Your task to perform on an android device: check storage Image 0: 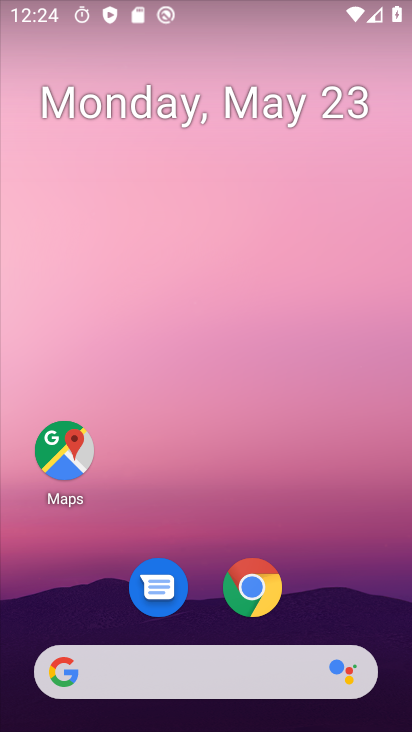
Step 0: drag from (161, 618) to (254, 65)
Your task to perform on an android device: check storage Image 1: 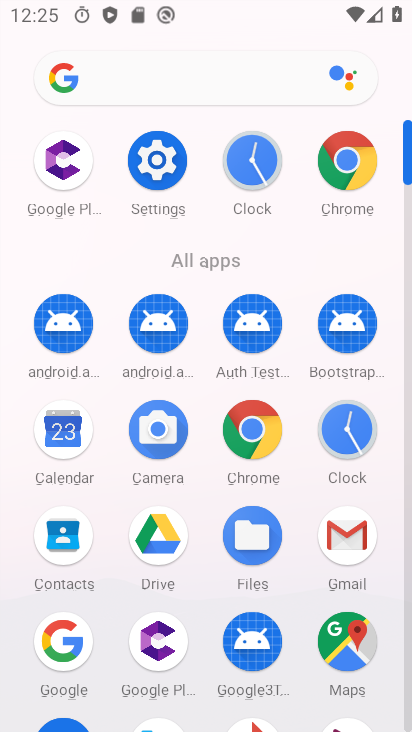
Step 1: click (137, 159)
Your task to perform on an android device: check storage Image 2: 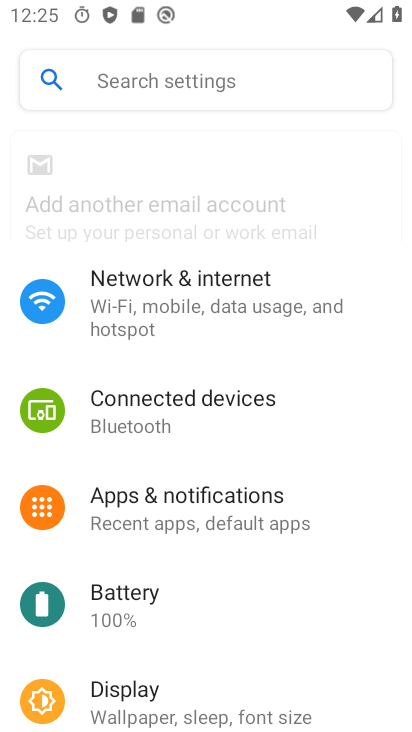
Step 2: drag from (156, 605) to (231, 133)
Your task to perform on an android device: check storage Image 3: 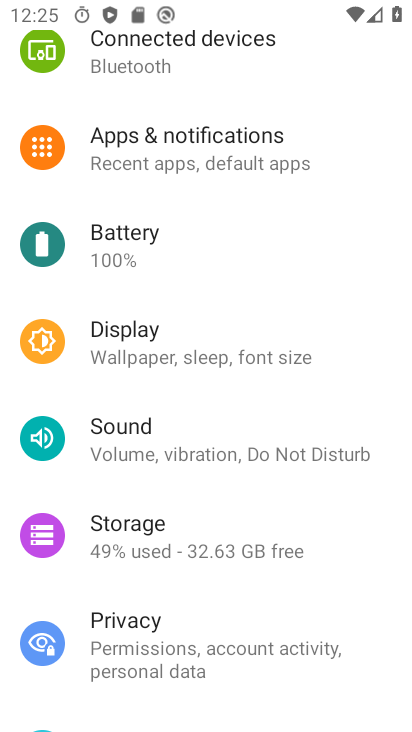
Step 3: click (142, 531)
Your task to perform on an android device: check storage Image 4: 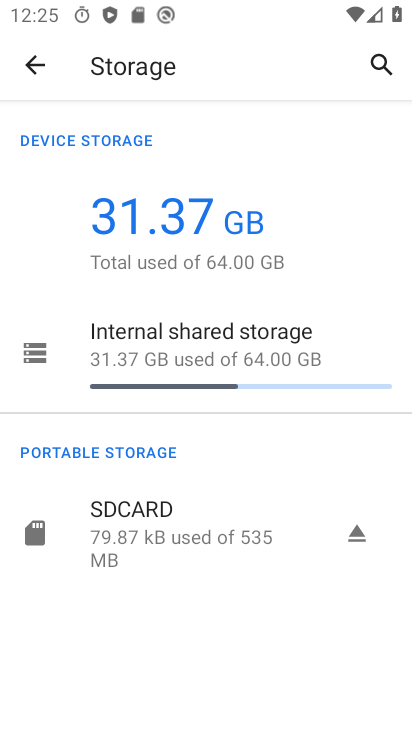
Step 4: task complete